Your task to perform on an android device: Go to Amazon Image 0: 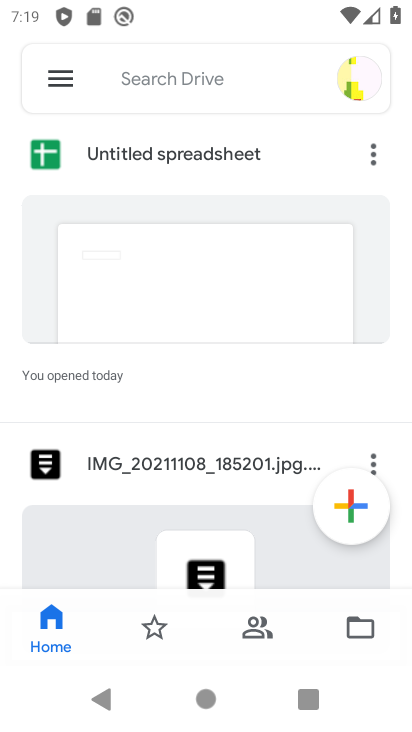
Step 0: press home button
Your task to perform on an android device: Go to Amazon Image 1: 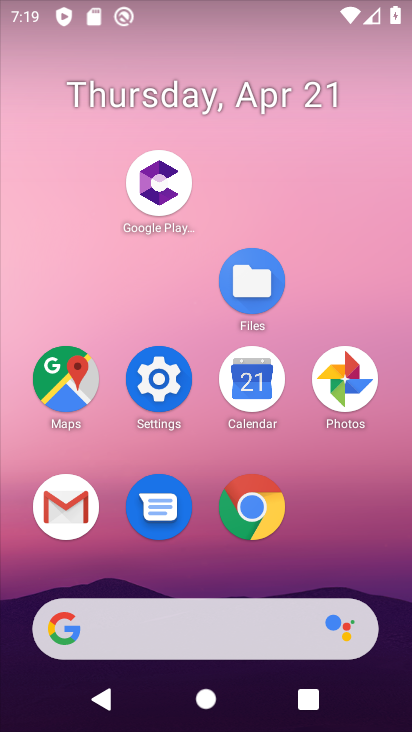
Step 1: click (247, 508)
Your task to perform on an android device: Go to Amazon Image 2: 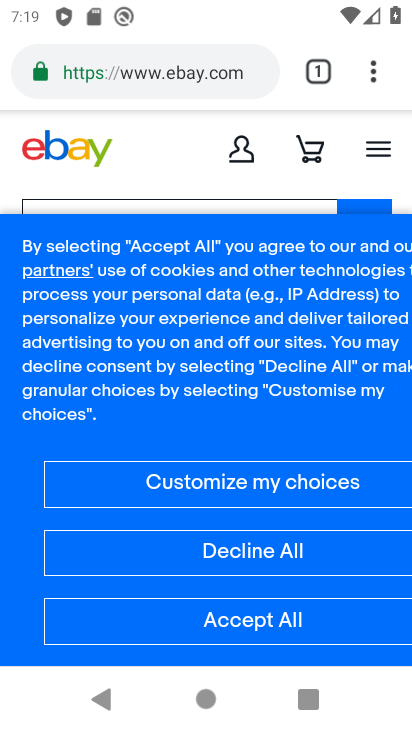
Step 2: click (371, 71)
Your task to perform on an android device: Go to Amazon Image 3: 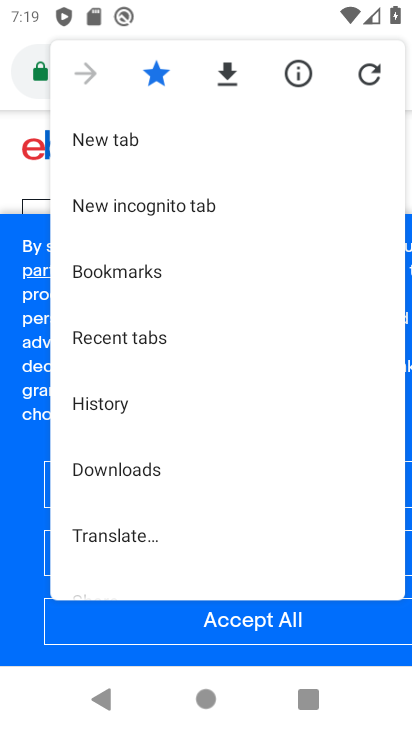
Step 3: click (128, 137)
Your task to perform on an android device: Go to Amazon Image 4: 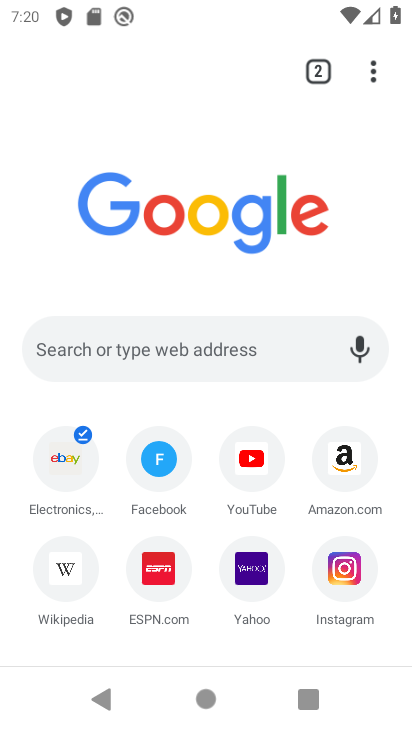
Step 4: click (334, 461)
Your task to perform on an android device: Go to Amazon Image 5: 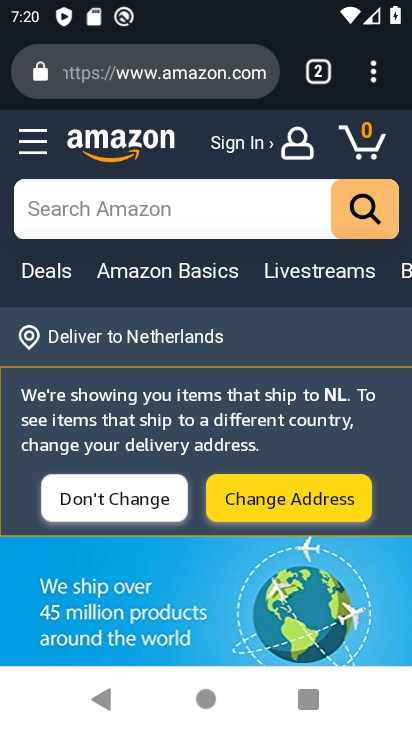
Step 5: task complete